Your task to perform on an android device: choose inbox layout in the gmail app Image 0: 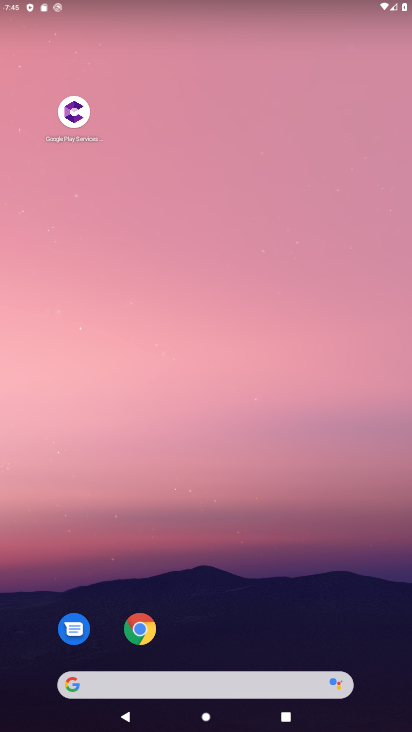
Step 0: drag from (249, 704) to (244, 13)
Your task to perform on an android device: choose inbox layout in the gmail app Image 1: 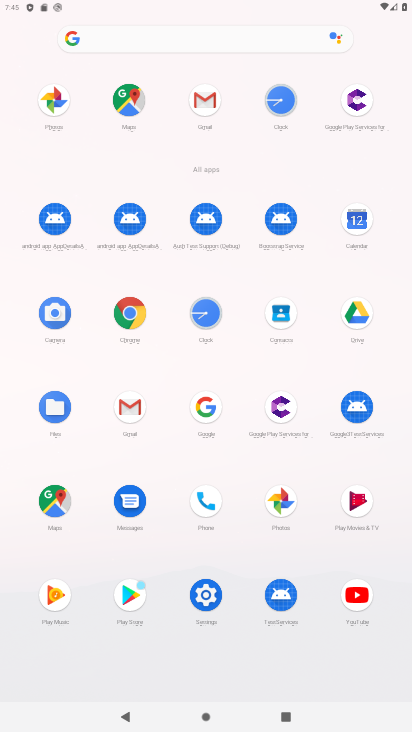
Step 1: click (193, 90)
Your task to perform on an android device: choose inbox layout in the gmail app Image 2: 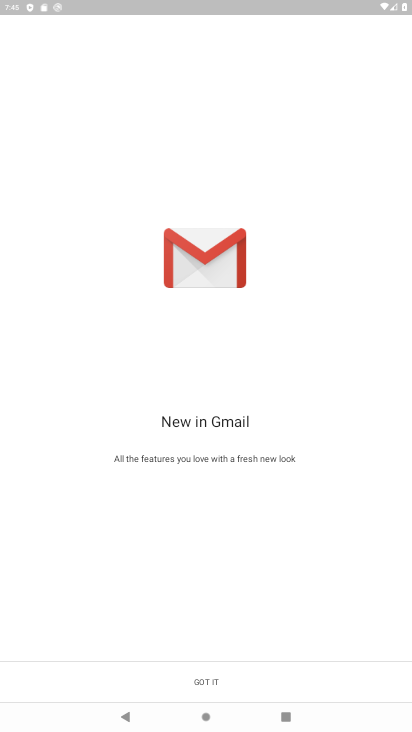
Step 2: click (219, 673)
Your task to perform on an android device: choose inbox layout in the gmail app Image 3: 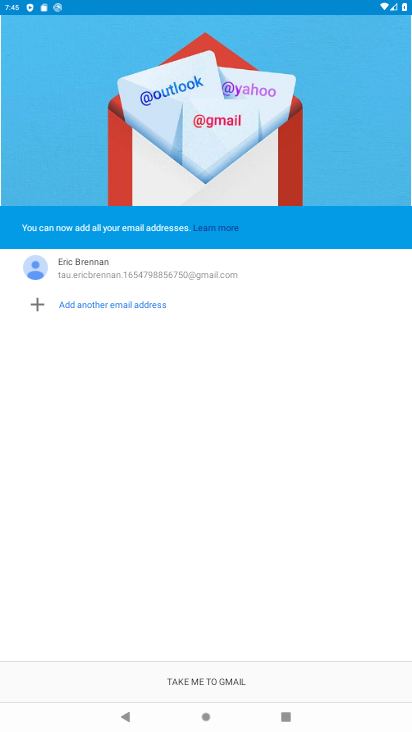
Step 3: click (228, 686)
Your task to perform on an android device: choose inbox layout in the gmail app Image 4: 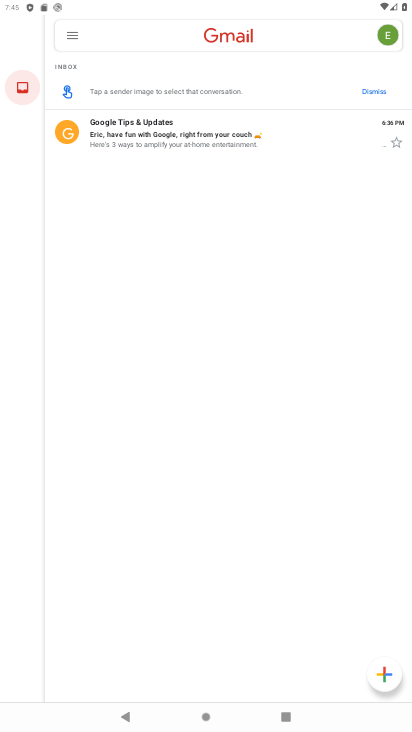
Step 4: click (77, 31)
Your task to perform on an android device: choose inbox layout in the gmail app Image 5: 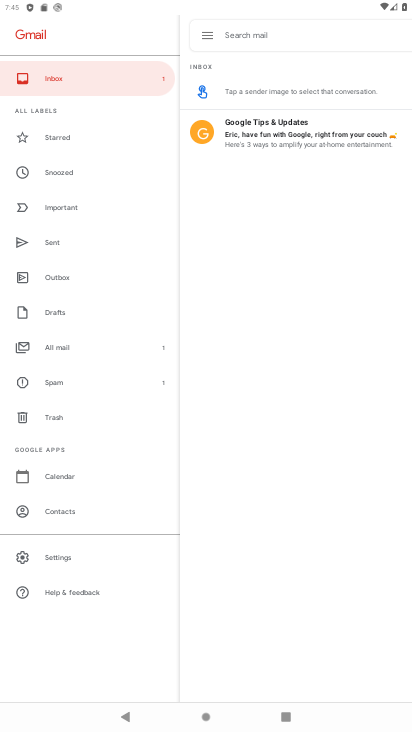
Step 5: click (77, 554)
Your task to perform on an android device: choose inbox layout in the gmail app Image 6: 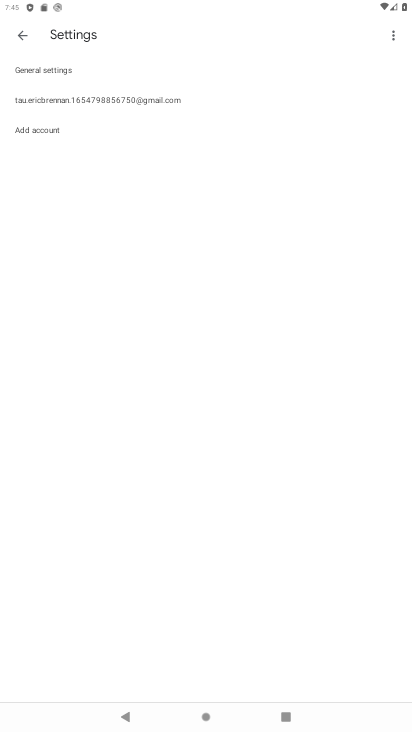
Step 6: click (146, 93)
Your task to perform on an android device: choose inbox layout in the gmail app Image 7: 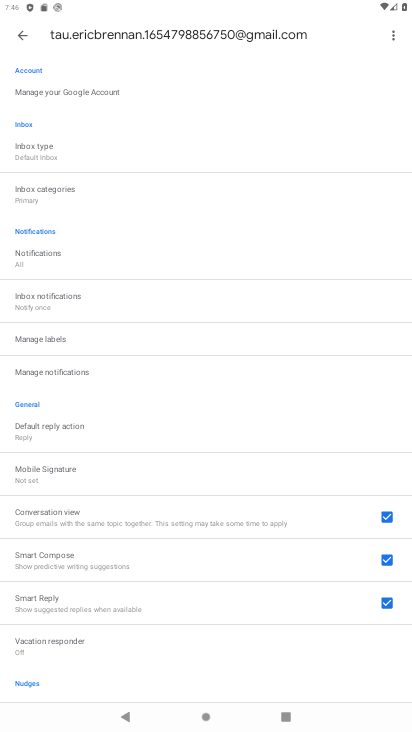
Step 7: click (46, 154)
Your task to perform on an android device: choose inbox layout in the gmail app Image 8: 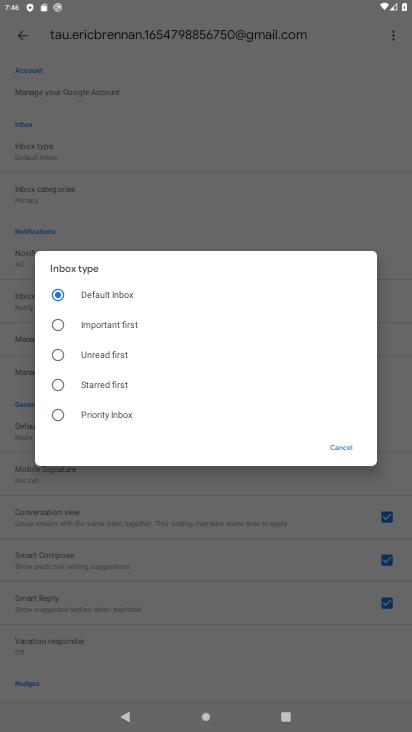
Step 8: click (103, 319)
Your task to perform on an android device: choose inbox layout in the gmail app Image 9: 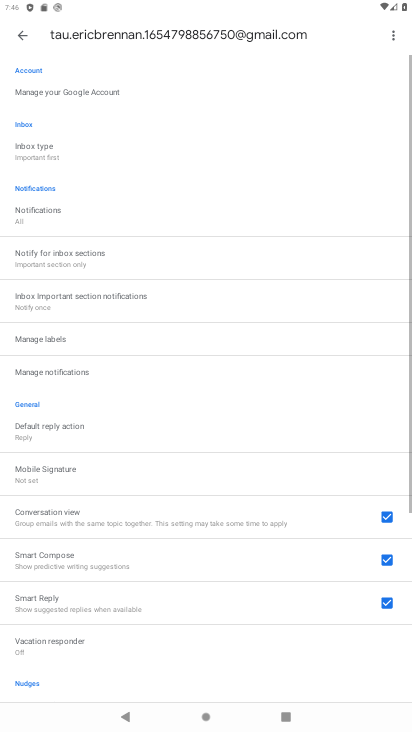
Step 9: task complete